Your task to perform on an android device: What's the weather going to be tomorrow? Image 0: 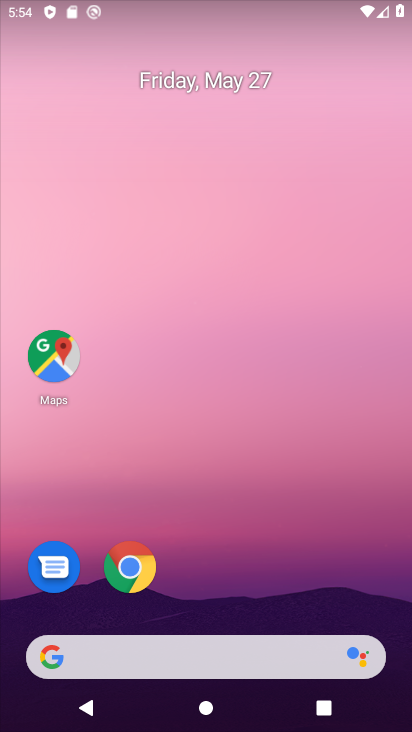
Step 0: click (193, 650)
Your task to perform on an android device: What's the weather going to be tomorrow? Image 1: 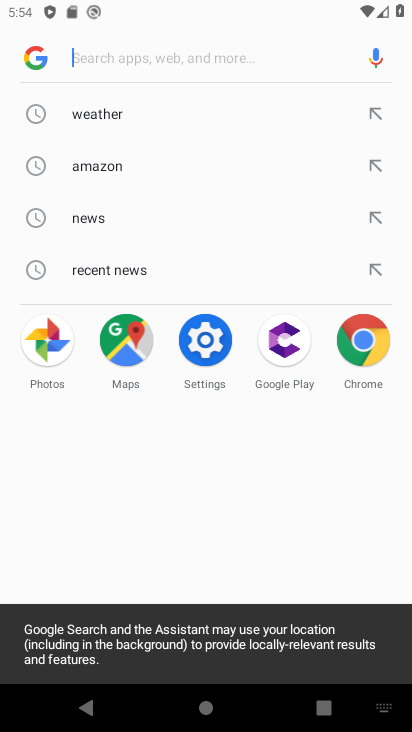
Step 1: click (113, 116)
Your task to perform on an android device: What's the weather going to be tomorrow? Image 2: 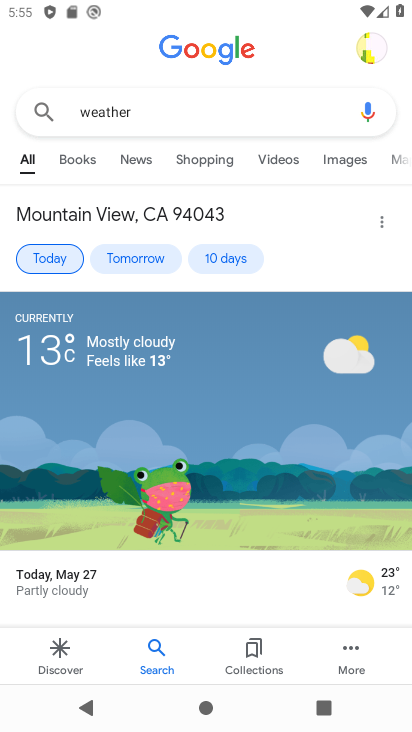
Step 2: click (148, 258)
Your task to perform on an android device: What's the weather going to be tomorrow? Image 3: 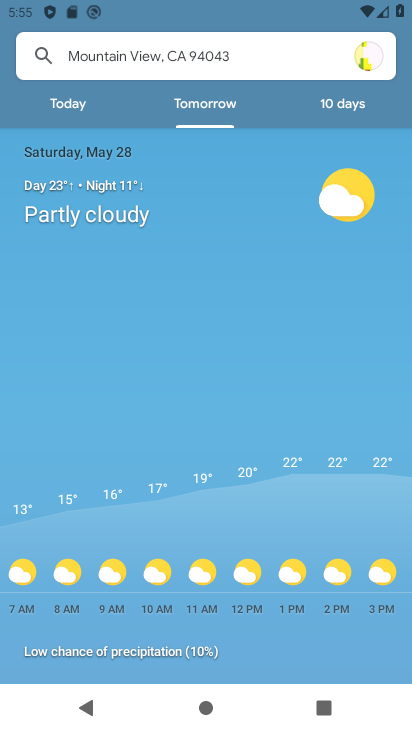
Step 3: task complete